Your task to perform on an android device: open wifi settings Image 0: 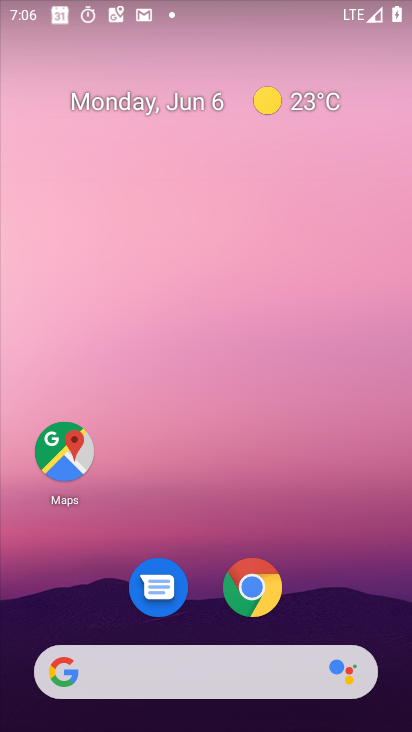
Step 0: drag from (401, 623) to (266, 86)
Your task to perform on an android device: open wifi settings Image 1: 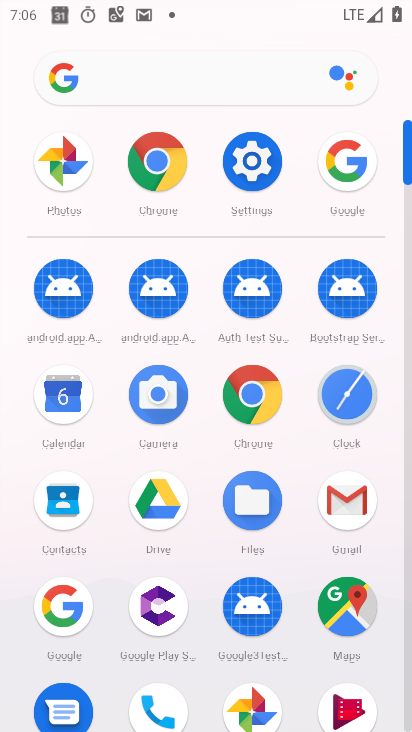
Step 1: click (252, 166)
Your task to perform on an android device: open wifi settings Image 2: 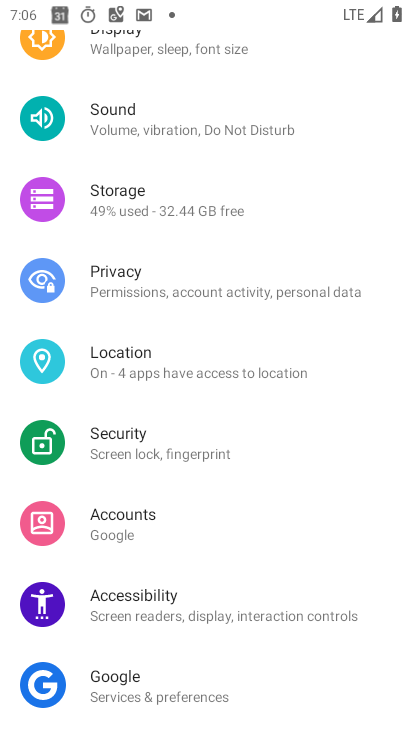
Step 2: drag from (201, 131) to (207, 642)
Your task to perform on an android device: open wifi settings Image 3: 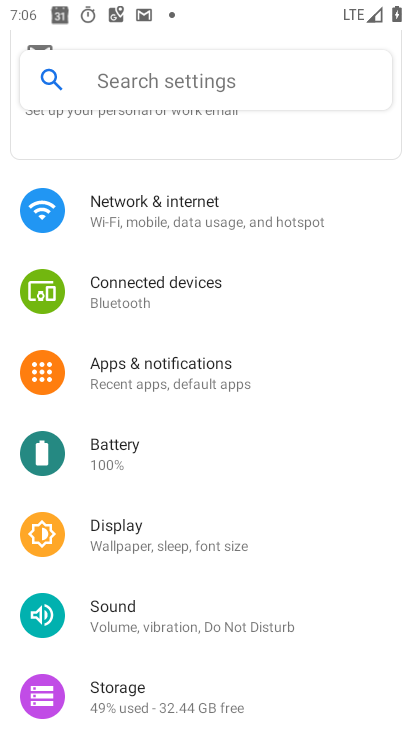
Step 3: drag from (157, 136) to (130, 516)
Your task to perform on an android device: open wifi settings Image 4: 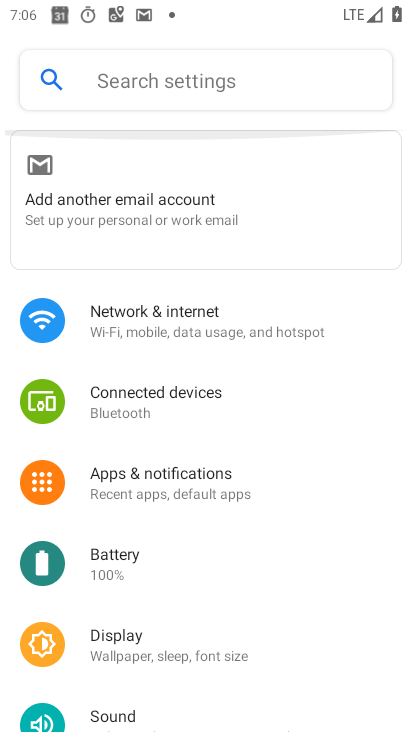
Step 4: click (158, 312)
Your task to perform on an android device: open wifi settings Image 5: 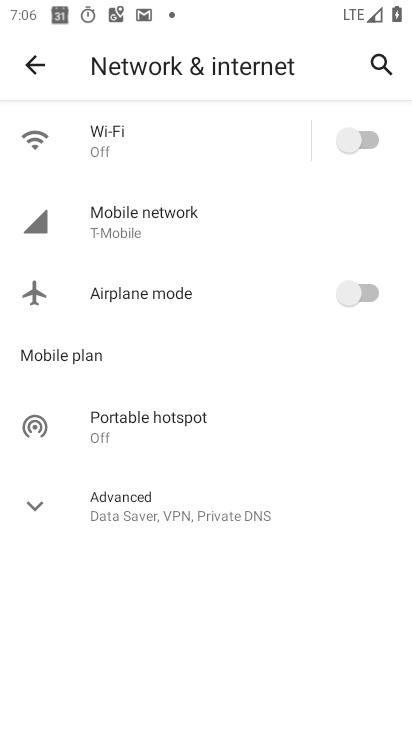
Step 5: click (131, 137)
Your task to perform on an android device: open wifi settings Image 6: 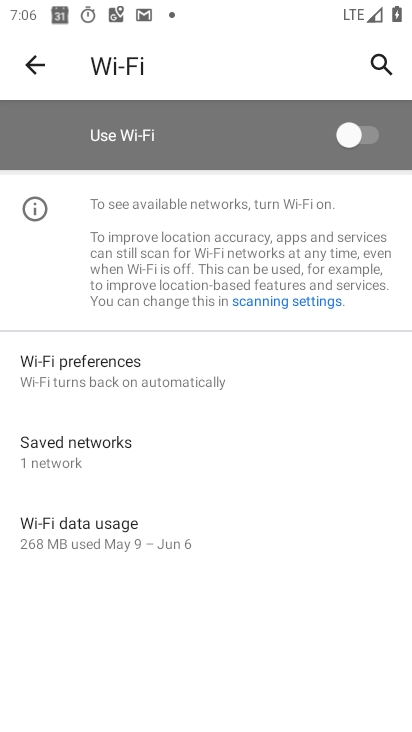
Step 6: task complete